Your task to perform on an android device: Go to Google Image 0: 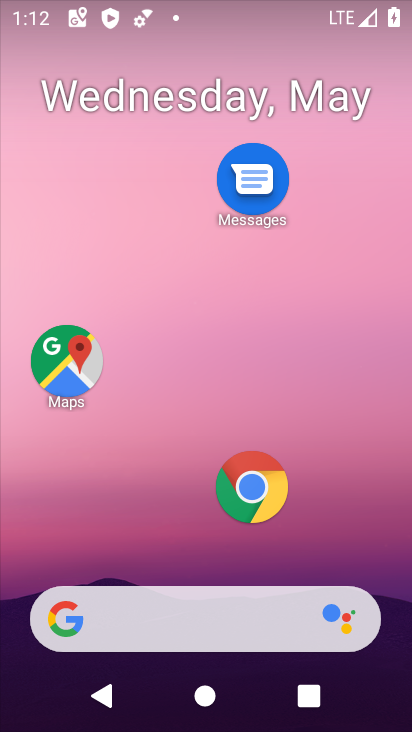
Step 0: click (188, 615)
Your task to perform on an android device: Go to Google Image 1: 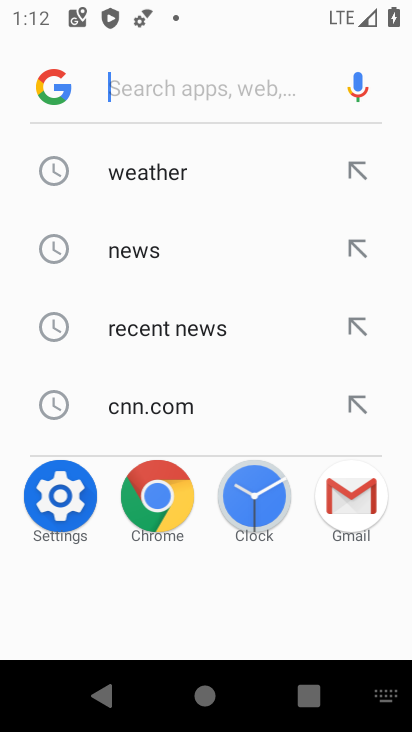
Step 1: click (68, 101)
Your task to perform on an android device: Go to Google Image 2: 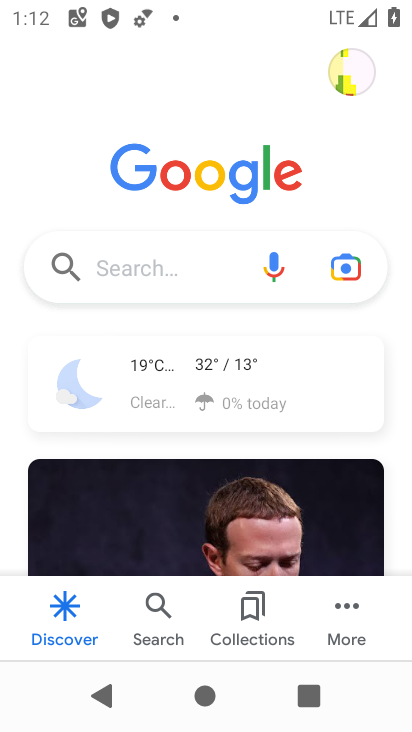
Step 2: task complete